Your task to perform on an android device: Open Google Chrome and click the shortcut for Amazon.com Image 0: 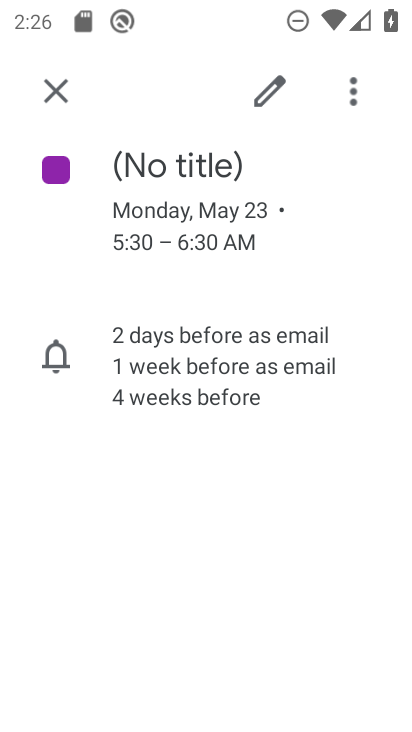
Step 0: press home button
Your task to perform on an android device: Open Google Chrome and click the shortcut for Amazon.com Image 1: 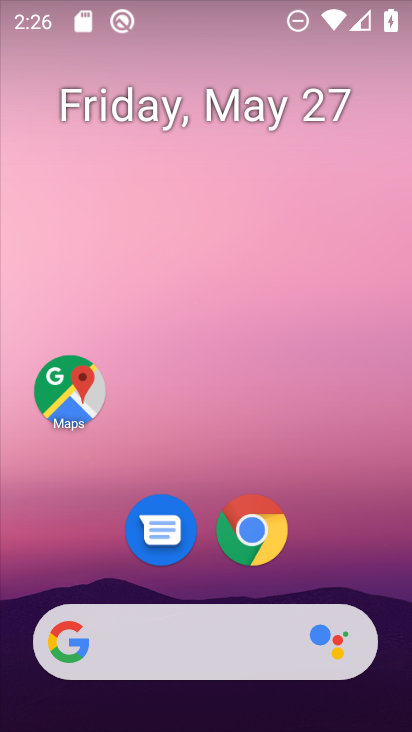
Step 1: click (238, 534)
Your task to perform on an android device: Open Google Chrome and click the shortcut for Amazon.com Image 2: 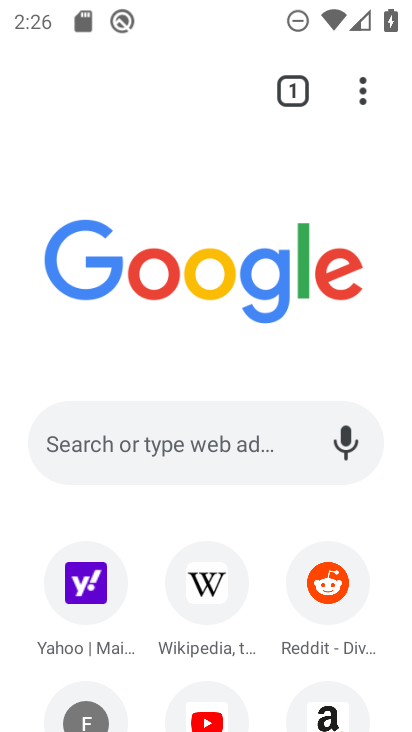
Step 2: click (325, 702)
Your task to perform on an android device: Open Google Chrome and click the shortcut for Amazon.com Image 3: 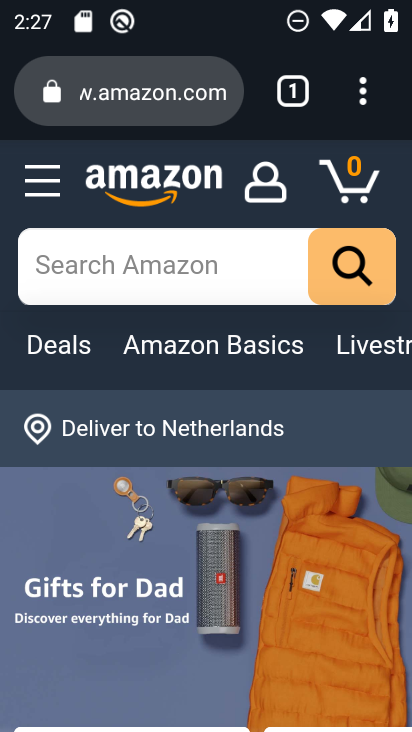
Step 3: task complete